Your task to perform on an android device: Check the news Image 0: 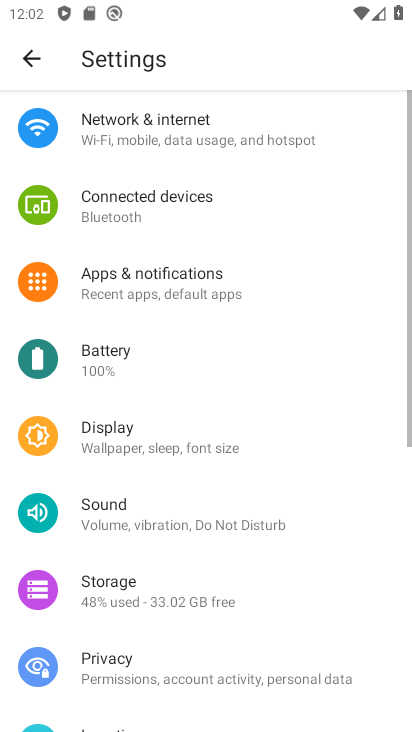
Step 0: press home button
Your task to perform on an android device: Check the news Image 1: 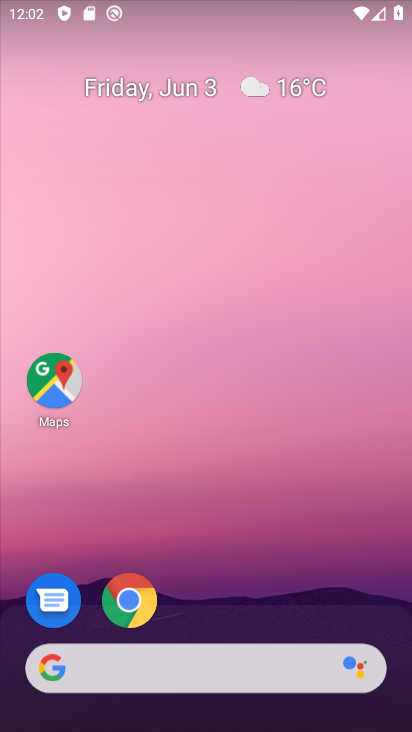
Step 1: task complete